Your task to perform on an android device: Go to wifi settings Image 0: 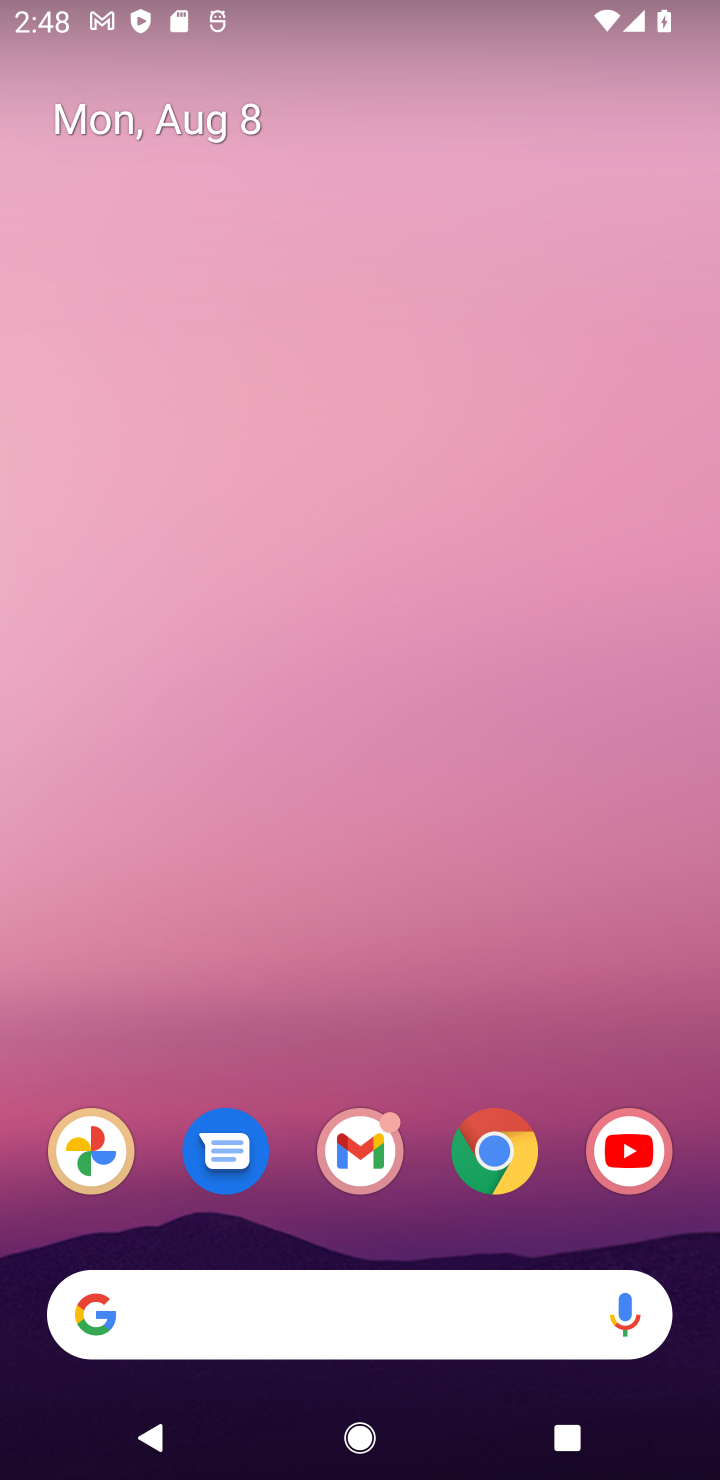
Step 0: drag from (331, 939) to (362, 187)
Your task to perform on an android device: Go to wifi settings Image 1: 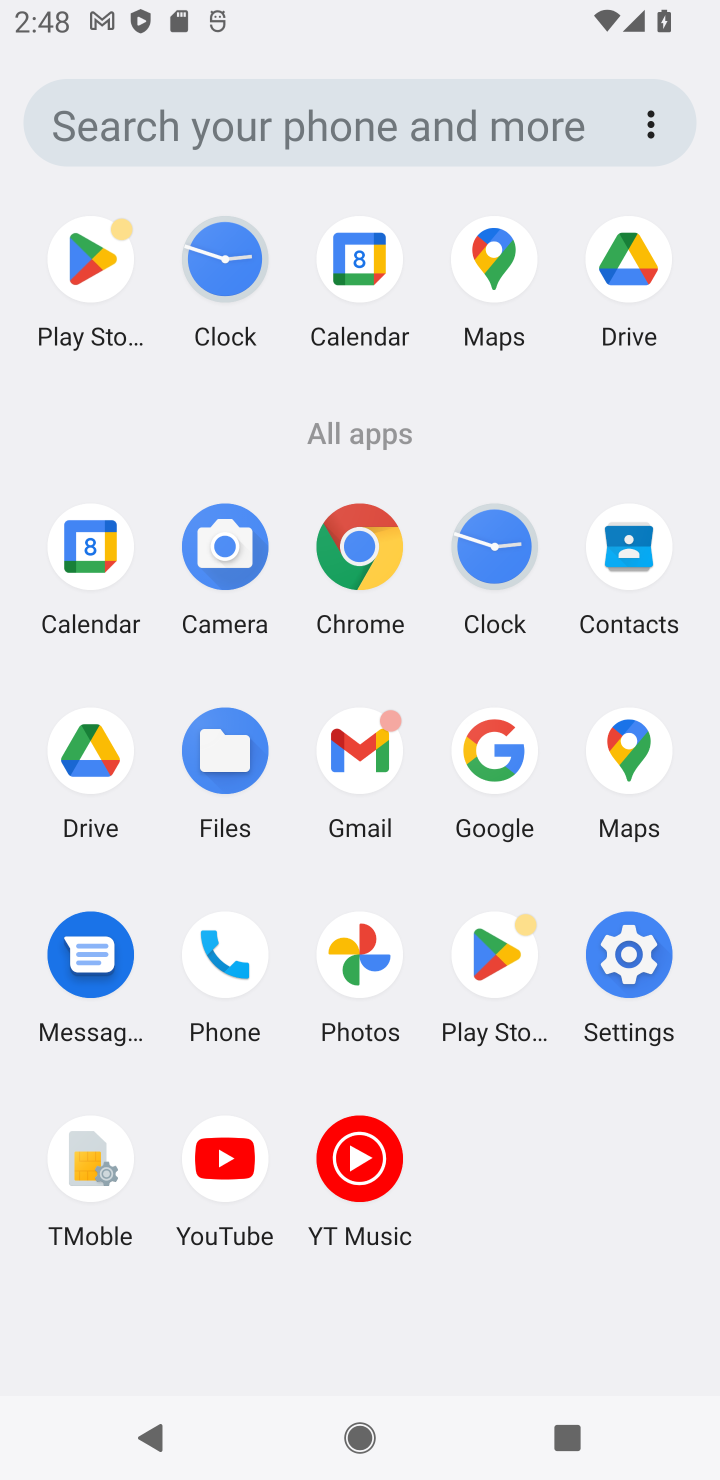
Step 1: click (608, 1005)
Your task to perform on an android device: Go to wifi settings Image 2: 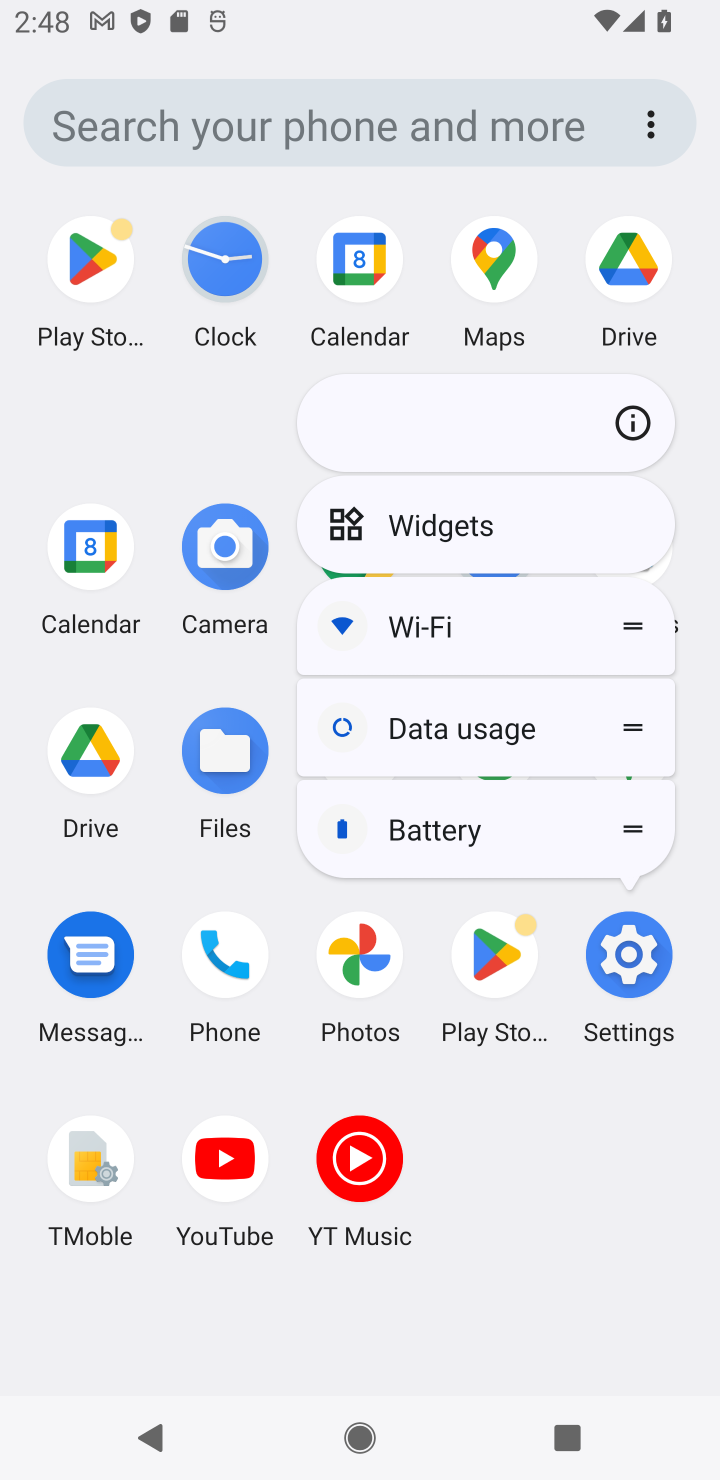
Step 2: click (601, 927)
Your task to perform on an android device: Go to wifi settings Image 3: 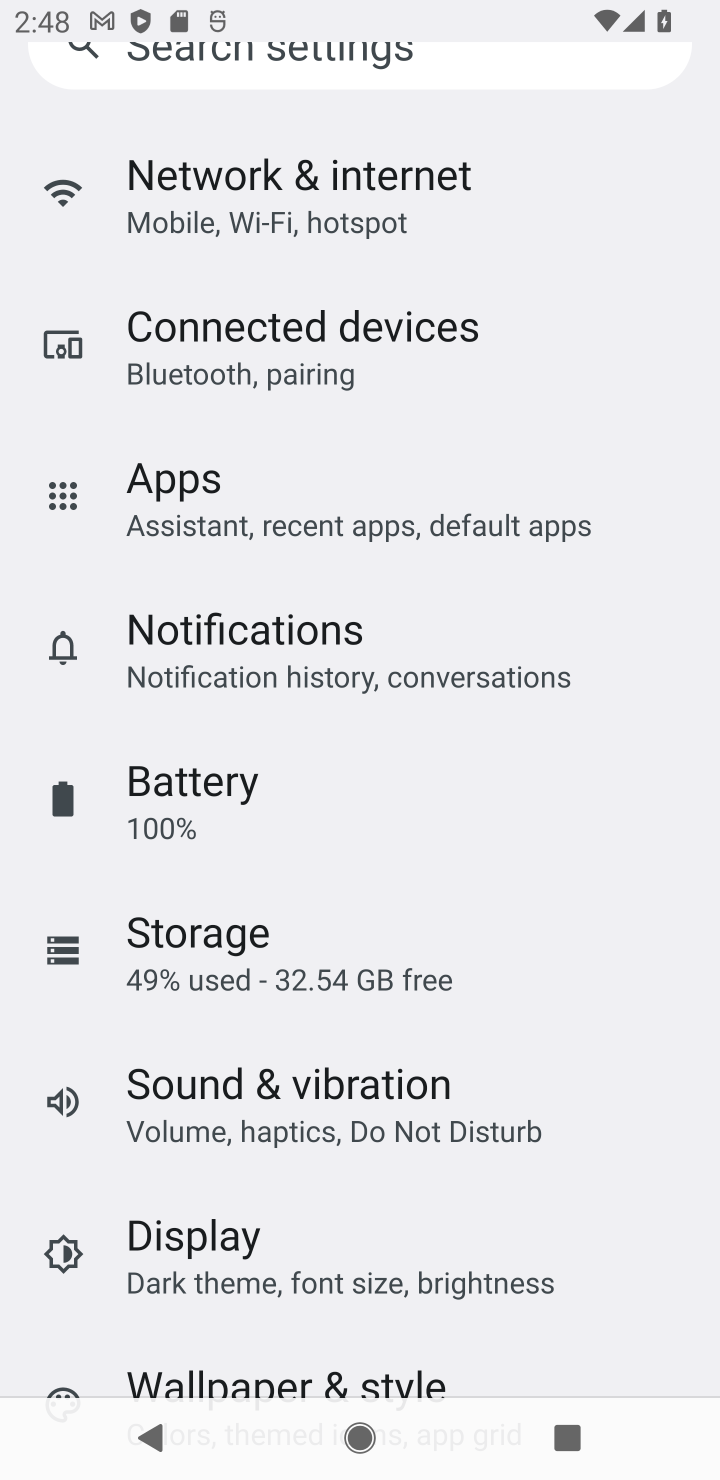
Step 3: click (388, 211)
Your task to perform on an android device: Go to wifi settings Image 4: 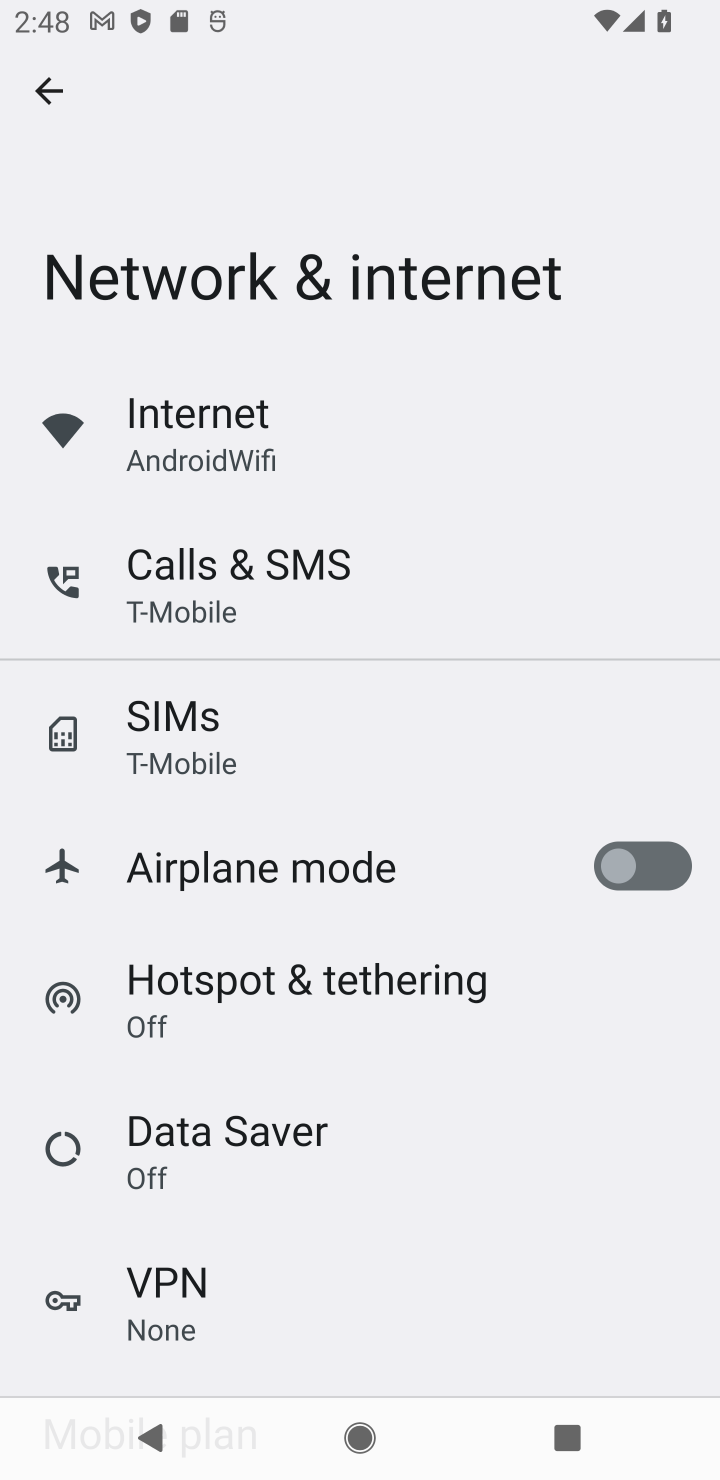
Step 4: click (189, 436)
Your task to perform on an android device: Go to wifi settings Image 5: 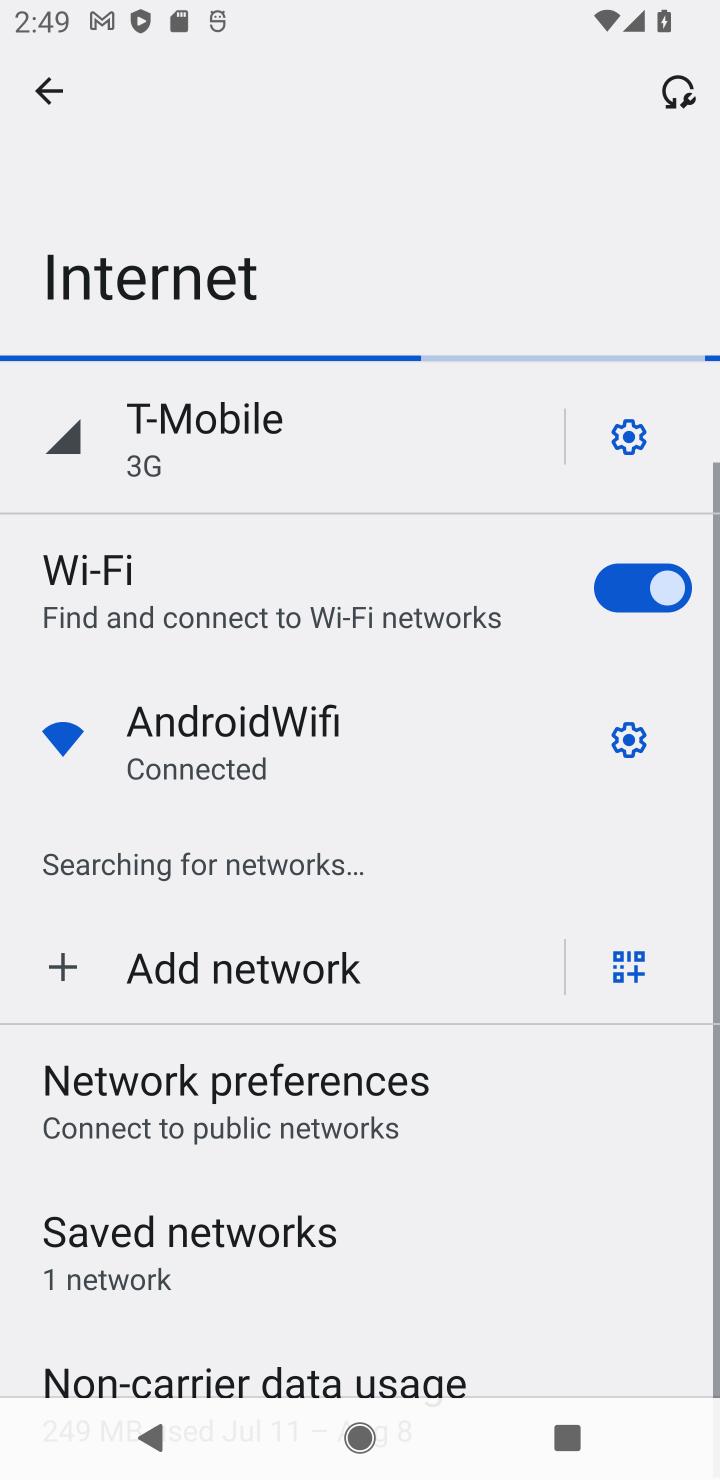
Step 5: task complete